Your task to perform on an android device: Open calendar and show me the first week of next month Image 0: 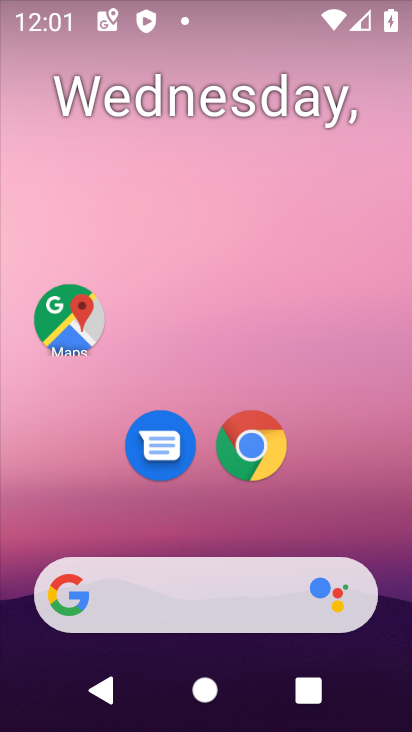
Step 0: drag from (339, 483) to (308, 51)
Your task to perform on an android device: Open calendar and show me the first week of next month Image 1: 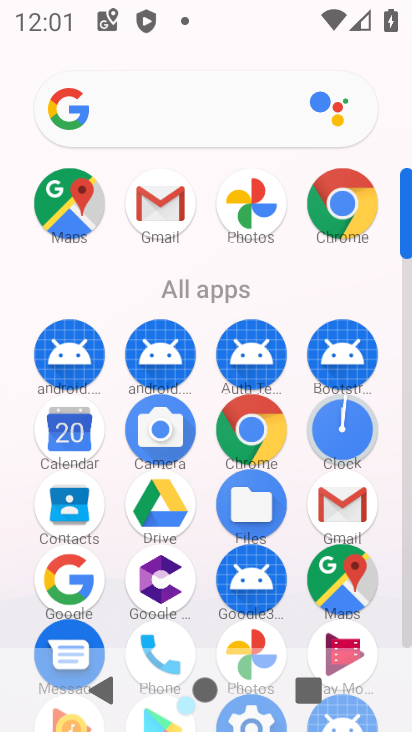
Step 1: click (75, 426)
Your task to perform on an android device: Open calendar and show me the first week of next month Image 2: 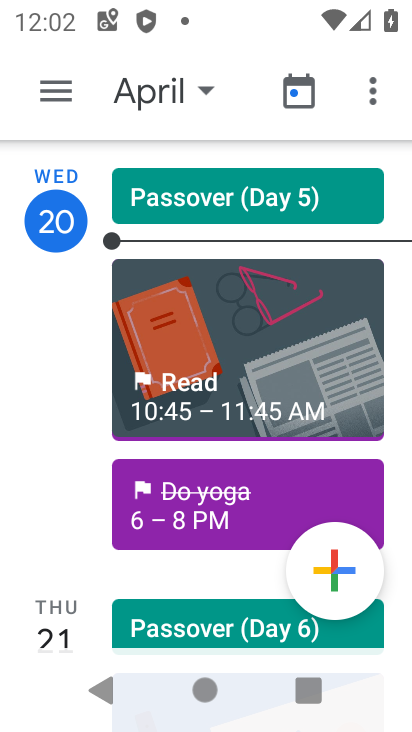
Step 2: click (154, 86)
Your task to perform on an android device: Open calendar and show me the first week of next month Image 3: 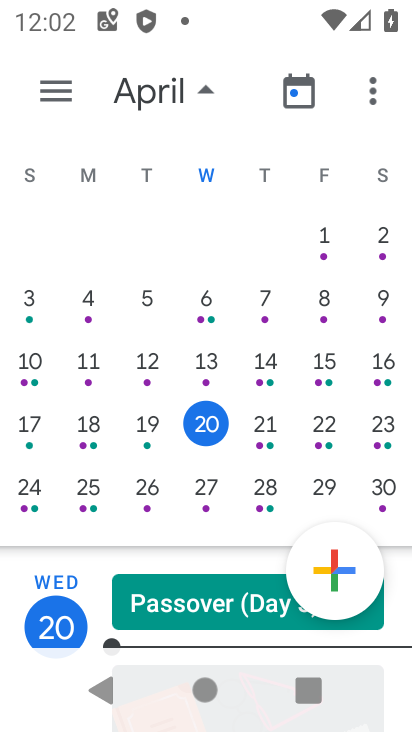
Step 3: drag from (377, 345) to (0, 319)
Your task to perform on an android device: Open calendar and show me the first week of next month Image 4: 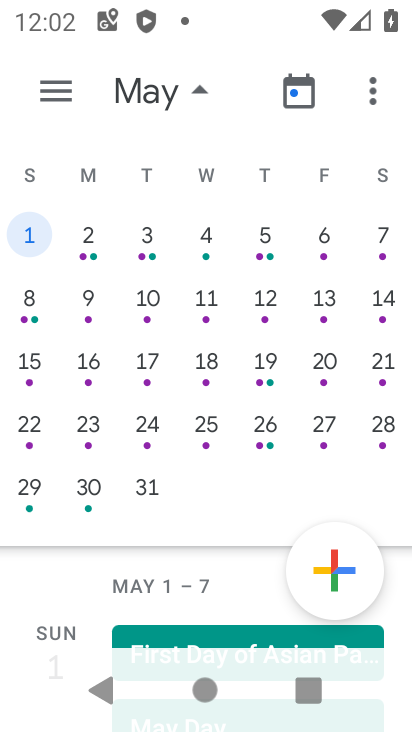
Step 4: click (143, 230)
Your task to perform on an android device: Open calendar and show me the first week of next month Image 5: 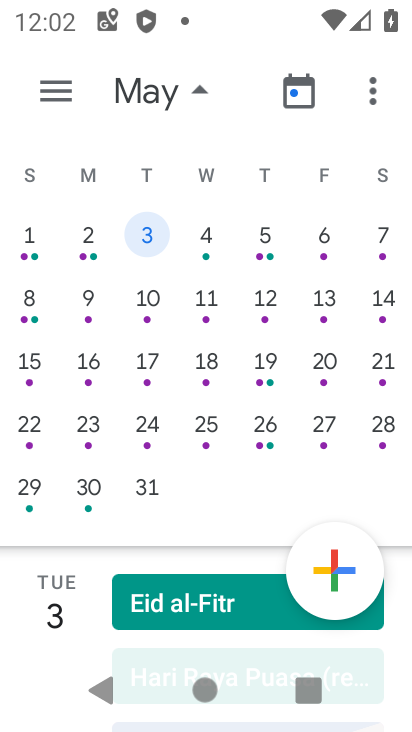
Step 5: task complete